Your task to perform on an android device: change the clock style Image 0: 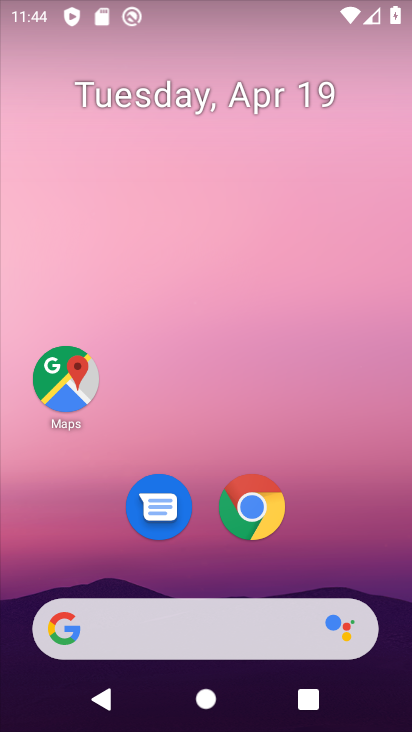
Step 0: drag from (196, 508) to (173, 99)
Your task to perform on an android device: change the clock style Image 1: 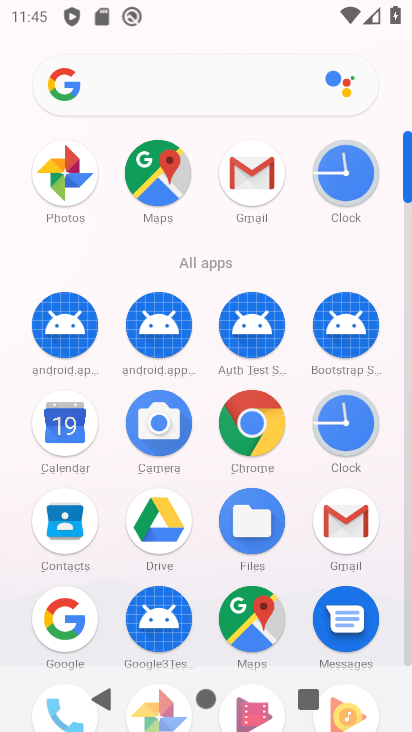
Step 1: click (352, 427)
Your task to perform on an android device: change the clock style Image 2: 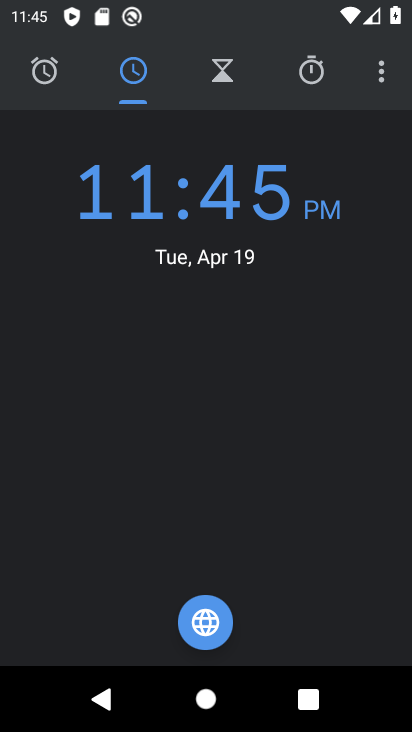
Step 2: click (386, 81)
Your task to perform on an android device: change the clock style Image 3: 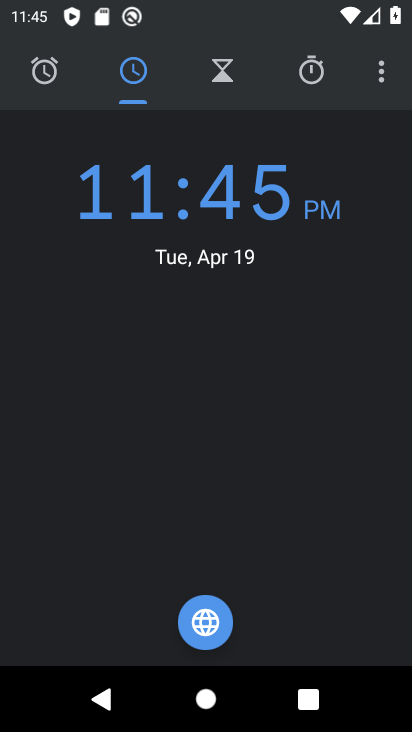
Step 3: click (386, 81)
Your task to perform on an android device: change the clock style Image 4: 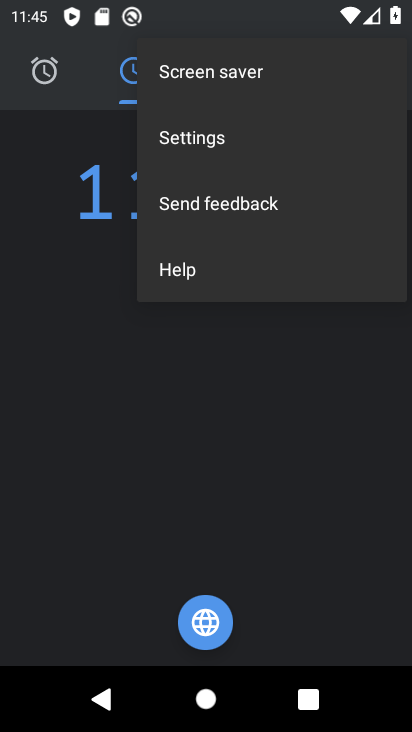
Step 4: click (194, 147)
Your task to perform on an android device: change the clock style Image 5: 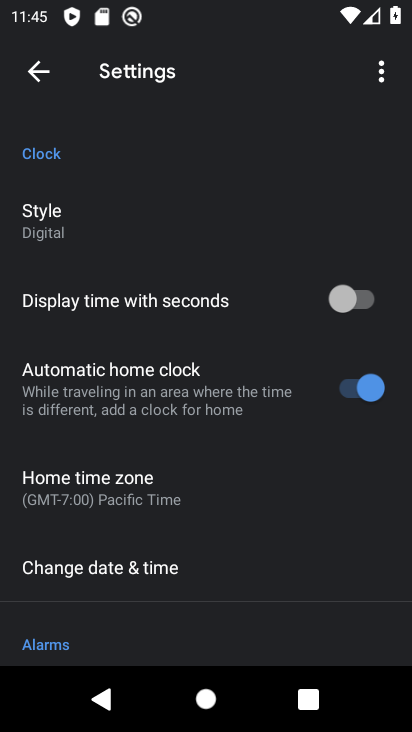
Step 5: click (118, 238)
Your task to perform on an android device: change the clock style Image 6: 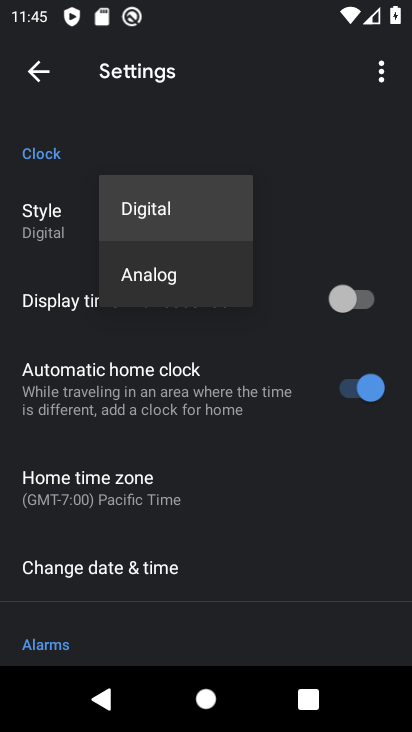
Step 6: click (158, 263)
Your task to perform on an android device: change the clock style Image 7: 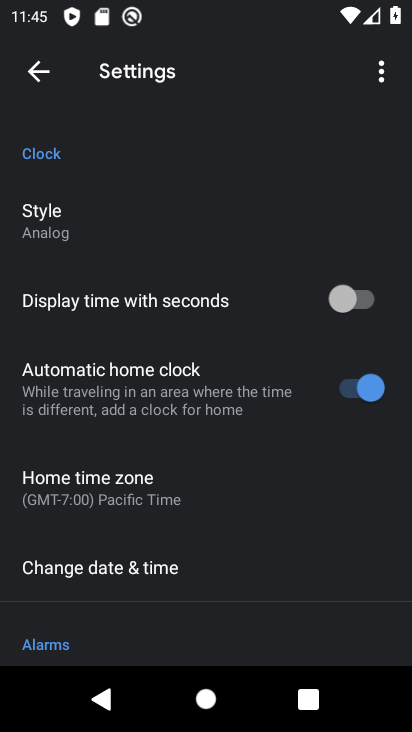
Step 7: task complete